Your task to perform on an android device: Is it going to rain today? Image 0: 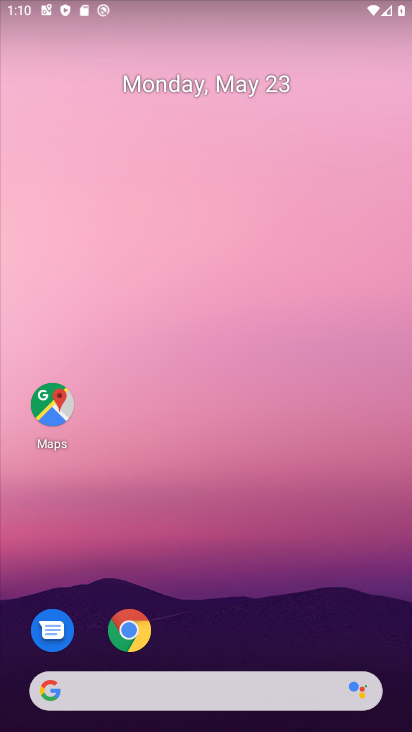
Step 0: drag from (216, 623) to (211, 140)
Your task to perform on an android device: Is it going to rain today? Image 1: 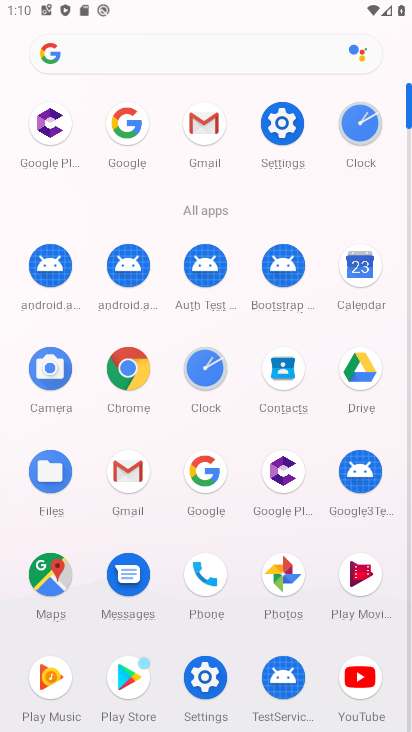
Step 1: click (203, 471)
Your task to perform on an android device: Is it going to rain today? Image 2: 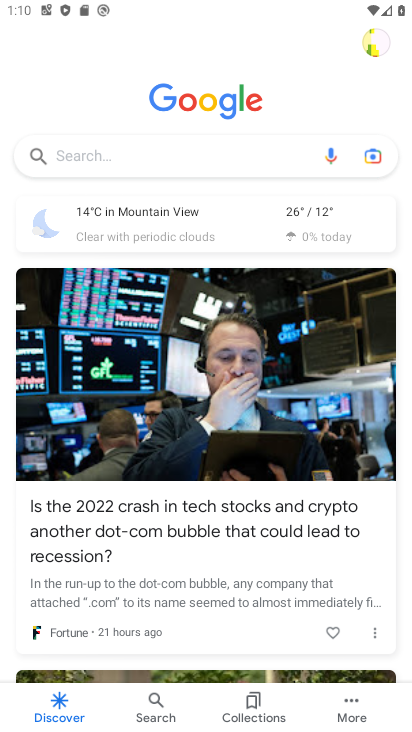
Step 2: click (179, 168)
Your task to perform on an android device: Is it going to rain today? Image 3: 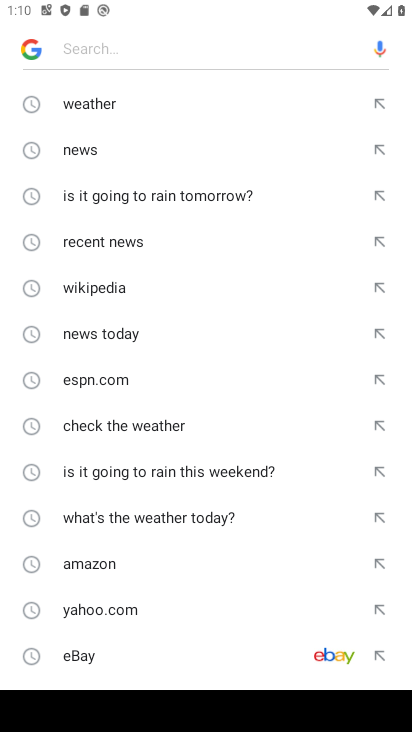
Step 3: type "is it going to rain today"
Your task to perform on an android device: Is it going to rain today? Image 4: 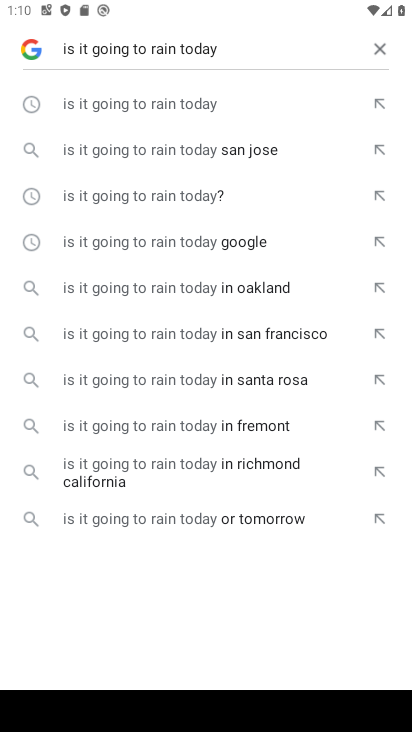
Step 4: click (189, 101)
Your task to perform on an android device: Is it going to rain today? Image 5: 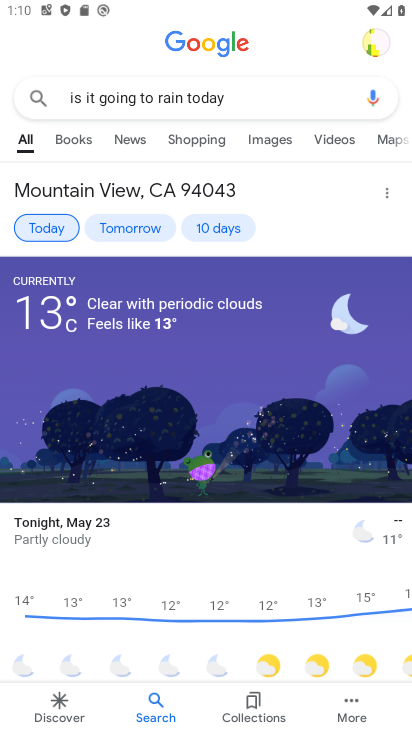
Step 5: task complete